Your task to perform on an android device: toggle notification dots Image 0: 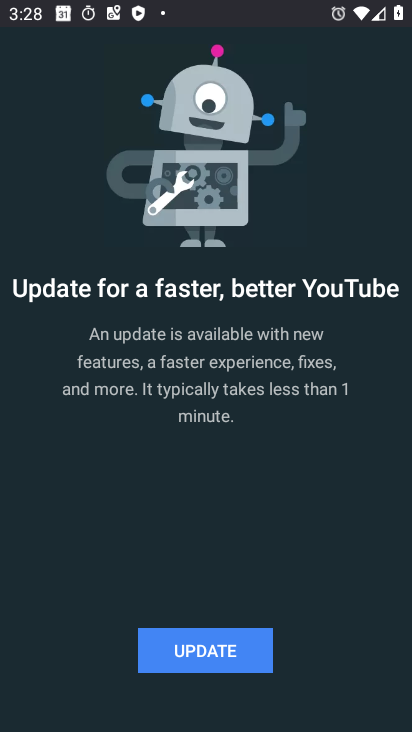
Step 0: press home button
Your task to perform on an android device: toggle notification dots Image 1: 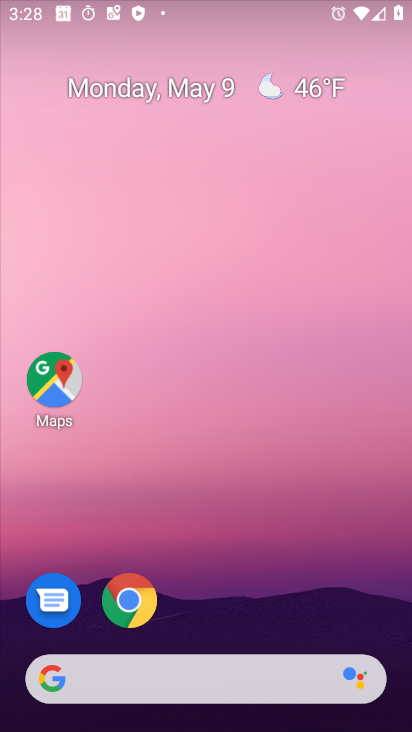
Step 1: drag from (191, 582) to (409, 215)
Your task to perform on an android device: toggle notification dots Image 2: 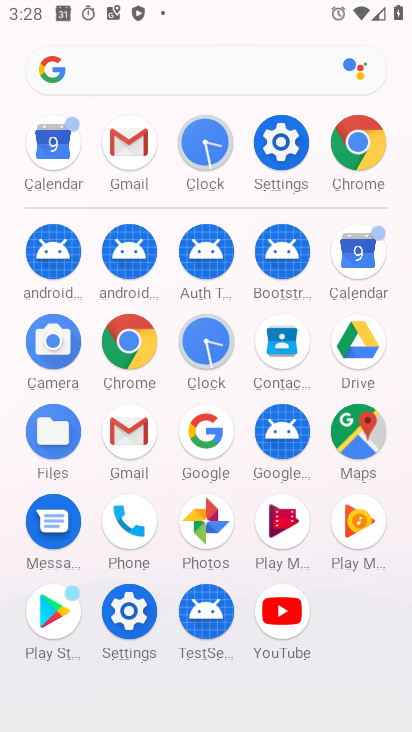
Step 2: click (280, 195)
Your task to perform on an android device: toggle notification dots Image 3: 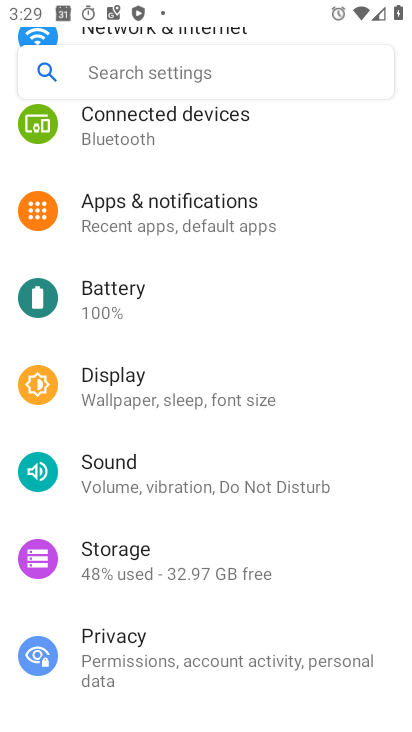
Step 3: click (198, 210)
Your task to perform on an android device: toggle notification dots Image 4: 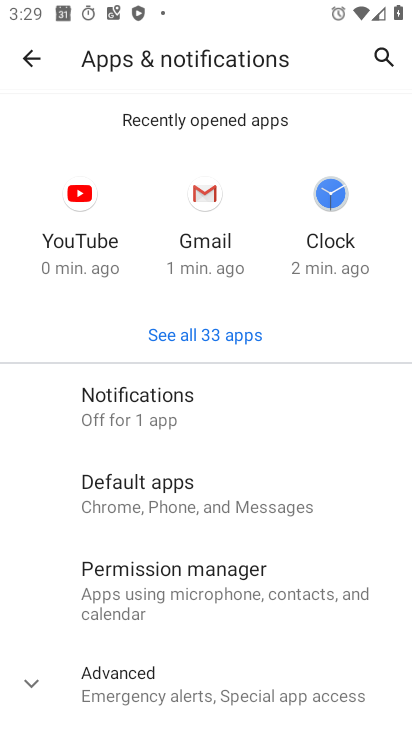
Step 4: click (164, 400)
Your task to perform on an android device: toggle notification dots Image 5: 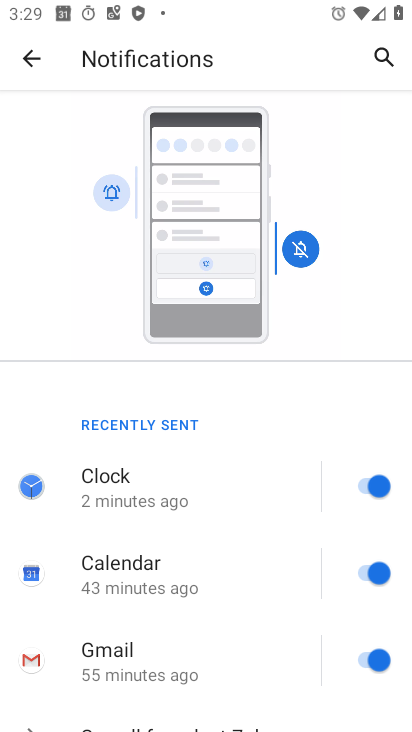
Step 5: drag from (153, 672) to (264, 188)
Your task to perform on an android device: toggle notification dots Image 6: 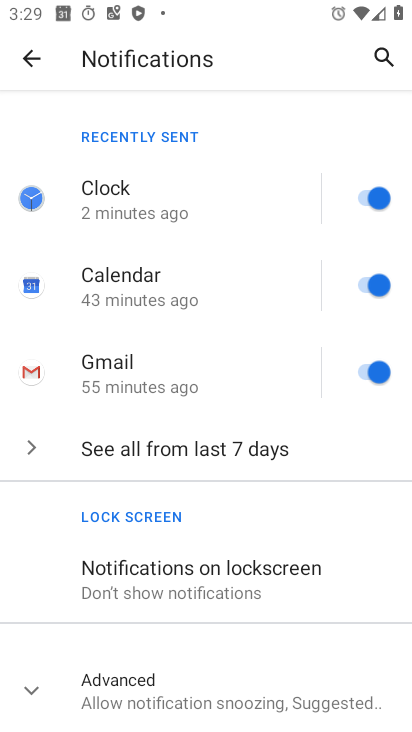
Step 6: click (170, 690)
Your task to perform on an android device: toggle notification dots Image 7: 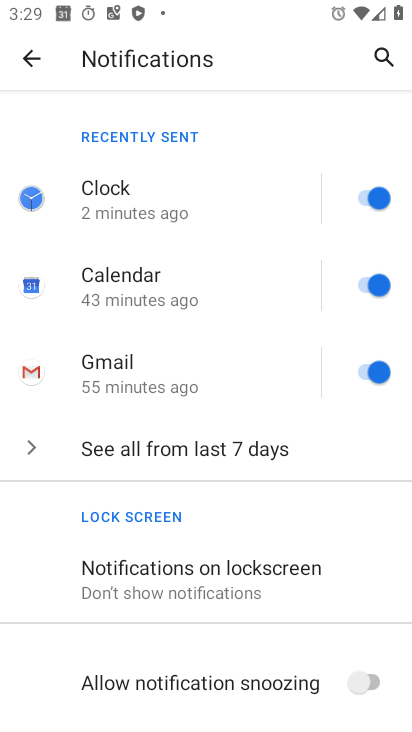
Step 7: drag from (180, 683) to (256, 228)
Your task to perform on an android device: toggle notification dots Image 8: 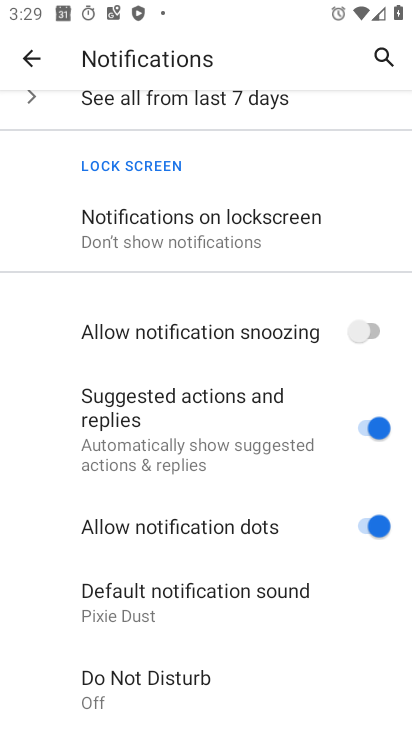
Step 8: click (371, 520)
Your task to perform on an android device: toggle notification dots Image 9: 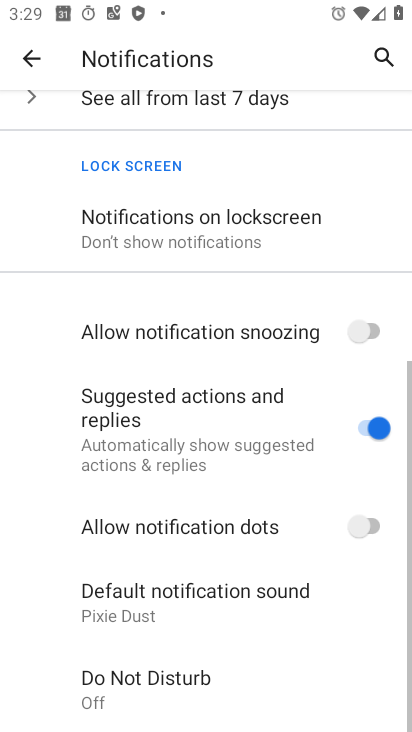
Step 9: task complete